Your task to perform on an android device: Go to calendar. Show me events next week Image 0: 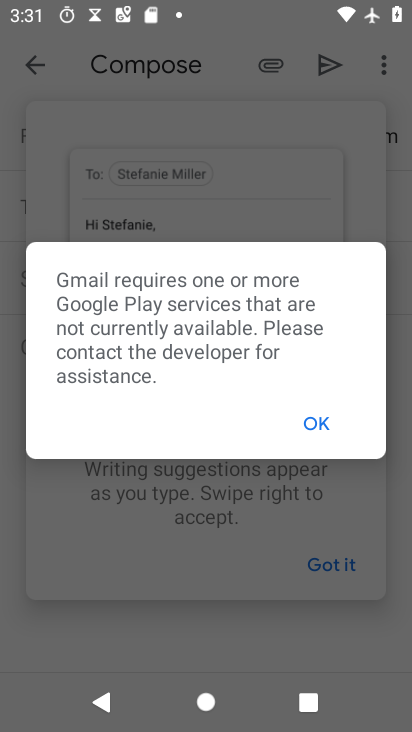
Step 0: press home button
Your task to perform on an android device: Go to calendar. Show me events next week Image 1: 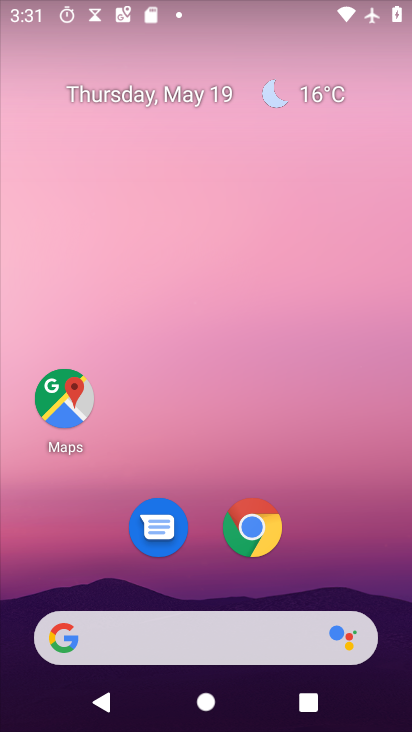
Step 1: drag from (339, 536) to (196, 67)
Your task to perform on an android device: Go to calendar. Show me events next week Image 2: 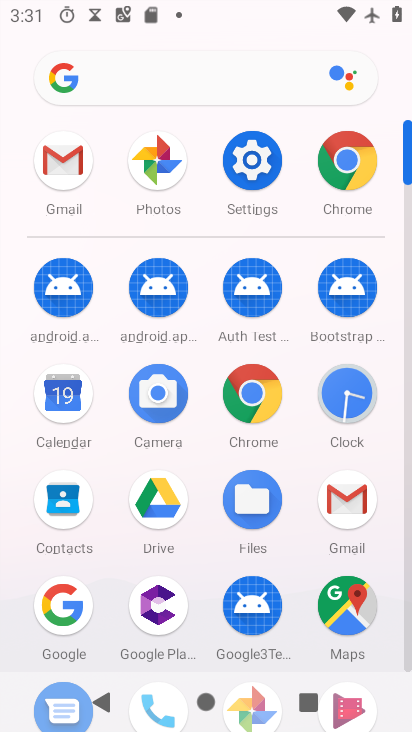
Step 2: click (50, 400)
Your task to perform on an android device: Go to calendar. Show me events next week Image 3: 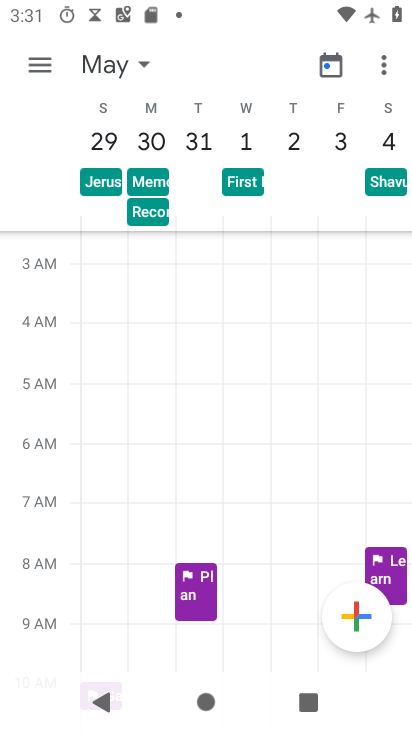
Step 3: click (135, 61)
Your task to perform on an android device: Go to calendar. Show me events next week Image 4: 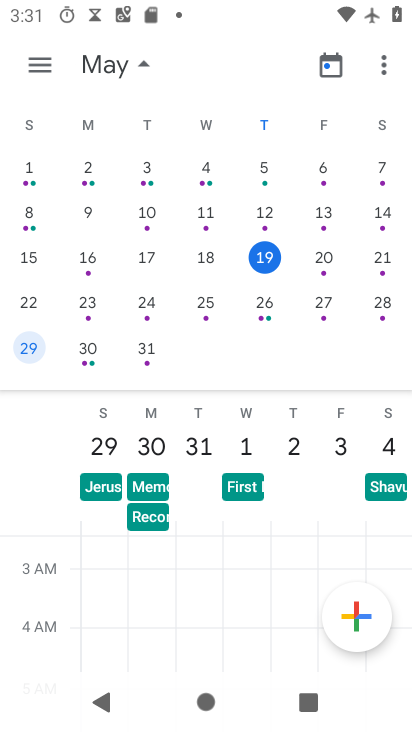
Step 4: click (38, 299)
Your task to perform on an android device: Go to calendar. Show me events next week Image 5: 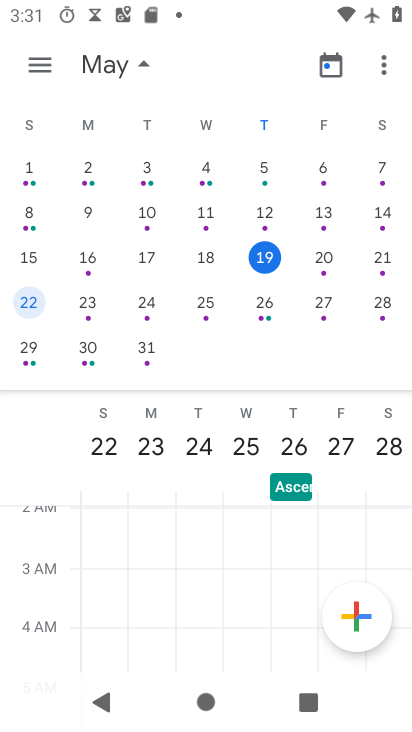
Step 5: task complete